Your task to perform on an android device: toggle notification dots Image 0: 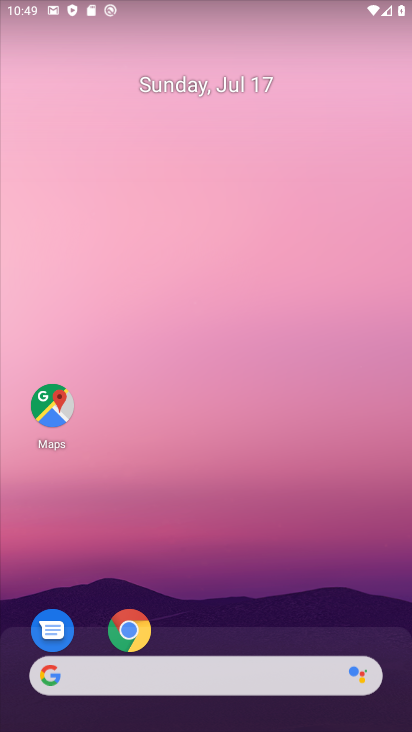
Step 0: drag from (236, 672) to (312, 133)
Your task to perform on an android device: toggle notification dots Image 1: 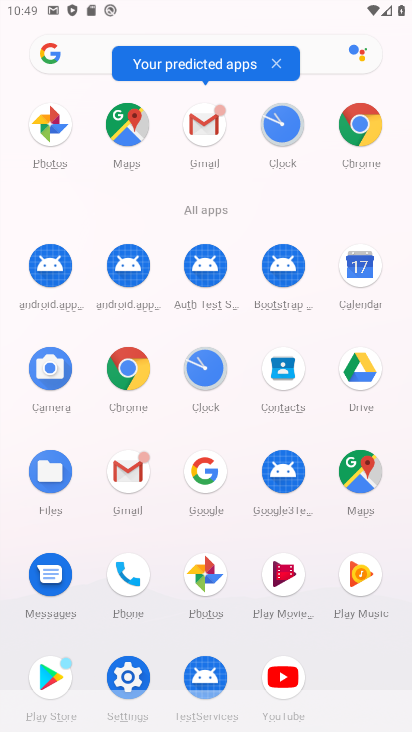
Step 1: click (124, 670)
Your task to perform on an android device: toggle notification dots Image 2: 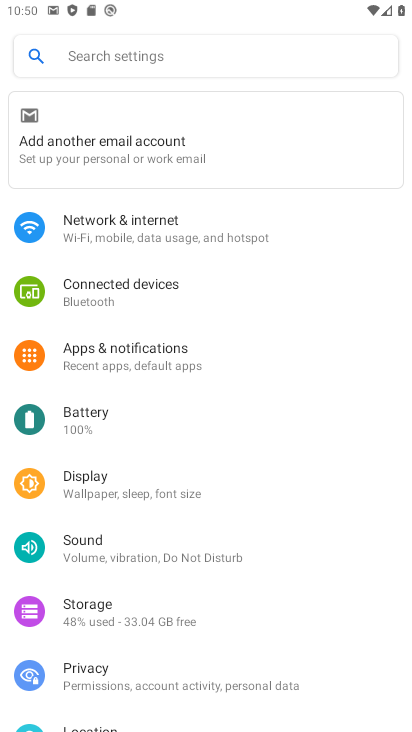
Step 2: click (181, 357)
Your task to perform on an android device: toggle notification dots Image 3: 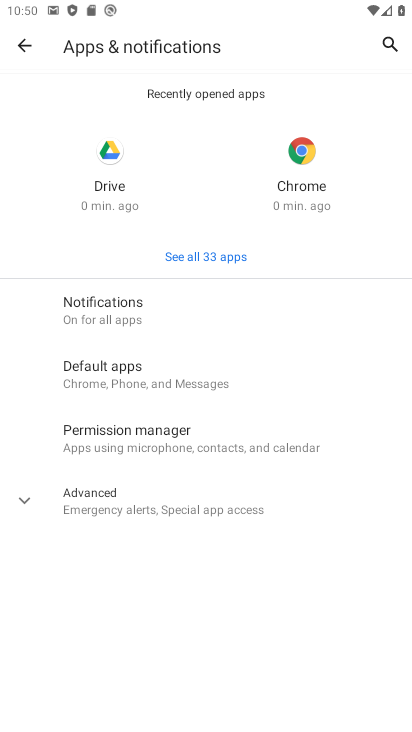
Step 3: click (204, 322)
Your task to perform on an android device: toggle notification dots Image 4: 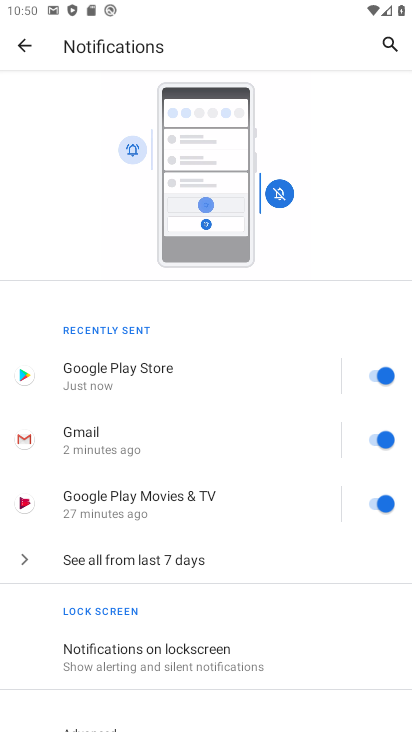
Step 4: drag from (209, 642) to (298, 316)
Your task to perform on an android device: toggle notification dots Image 5: 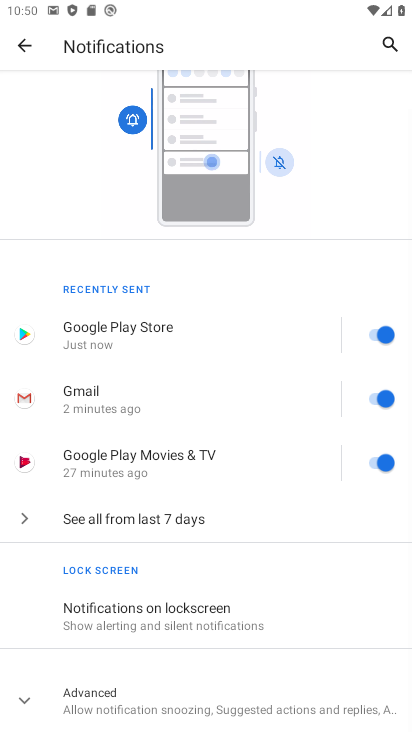
Step 5: click (236, 708)
Your task to perform on an android device: toggle notification dots Image 6: 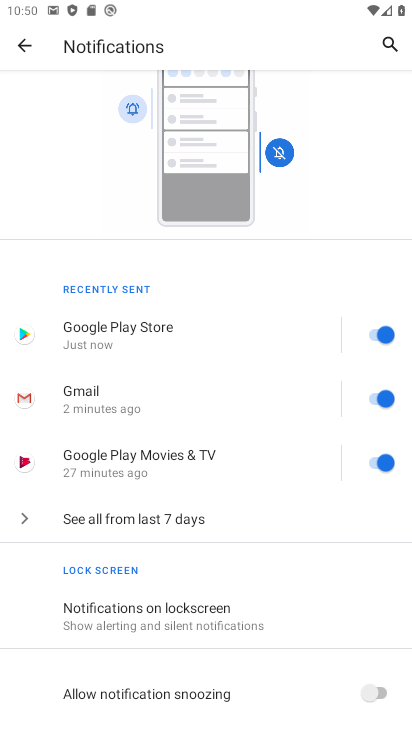
Step 6: drag from (190, 703) to (283, 288)
Your task to perform on an android device: toggle notification dots Image 7: 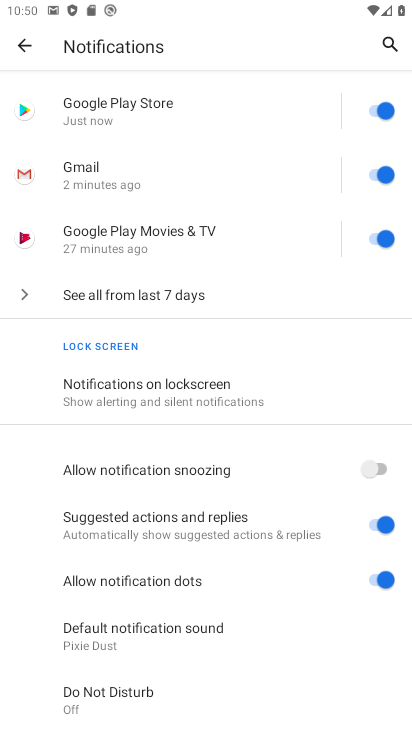
Step 7: click (365, 575)
Your task to perform on an android device: toggle notification dots Image 8: 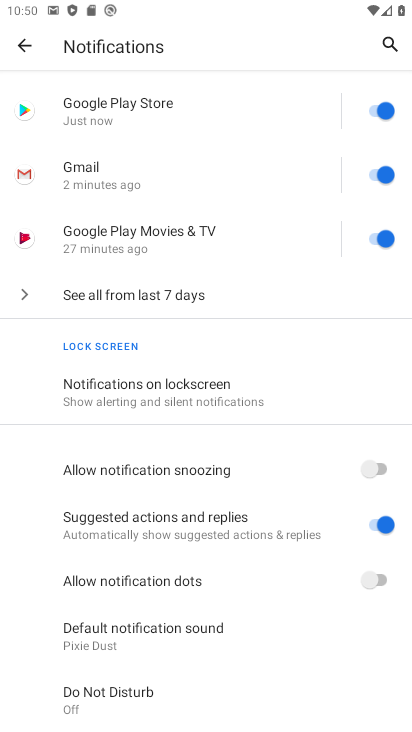
Step 8: task complete